Your task to perform on an android device: check google app version Image 0: 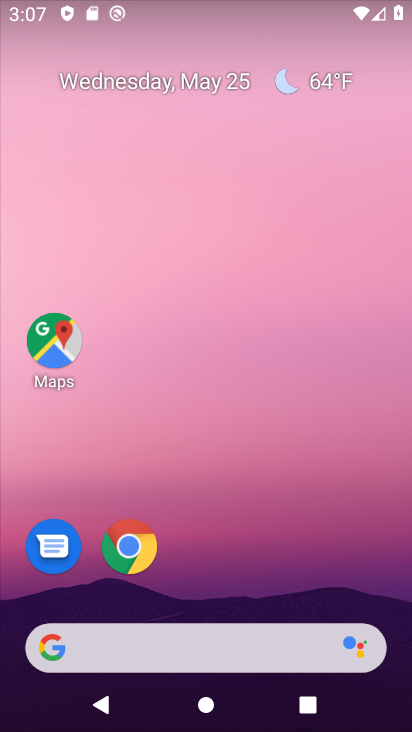
Step 0: drag from (234, 584) to (179, 171)
Your task to perform on an android device: check google app version Image 1: 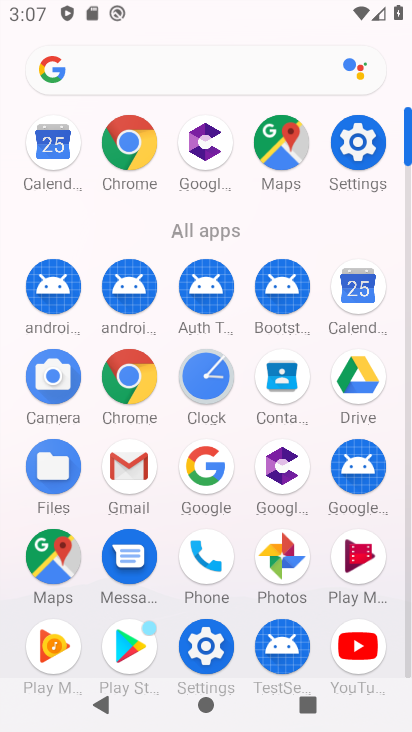
Step 1: click (201, 493)
Your task to perform on an android device: check google app version Image 2: 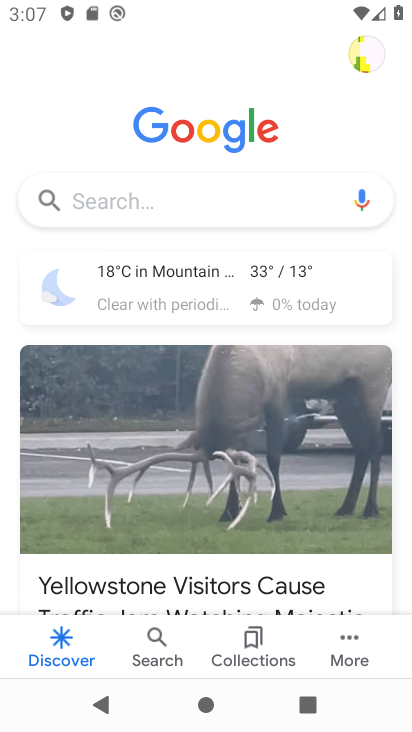
Step 2: click (367, 648)
Your task to perform on an android device: check google app version Image 3: 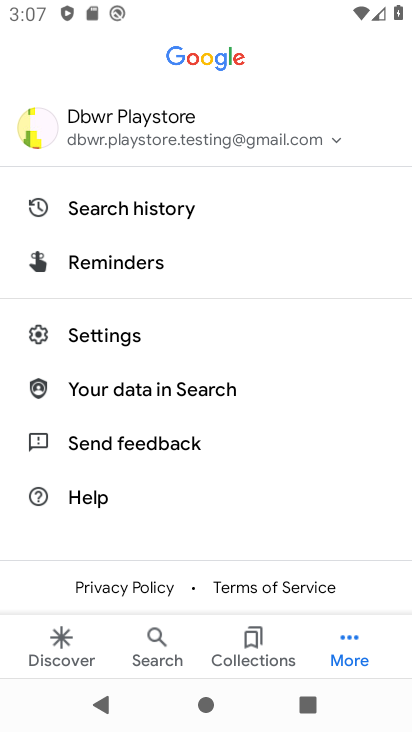
Step 3: click (120, 341)
Your task to perform on an android device: check google app version Image 4: 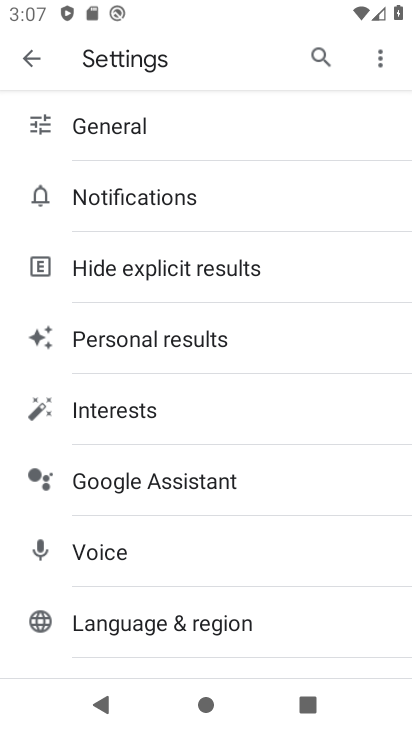
Step 4: drag from (179, 623) to (125, 441)
Your task to perform on an android device: check google app version Image 5: 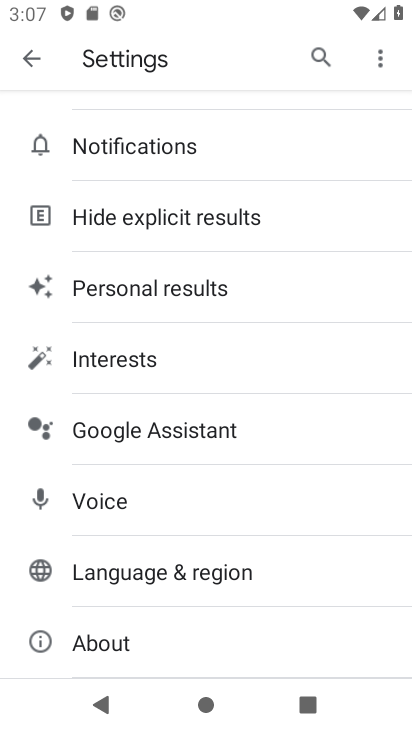
Step 5: click (90, 640)
Your task to perform on an android device: check google app version Image 6: 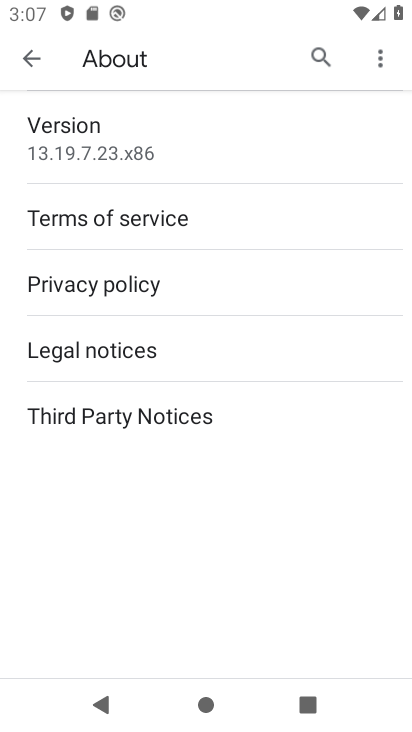
Step 6: click (96, 152)
Your task to perform on an android device: check google app version Image 7: 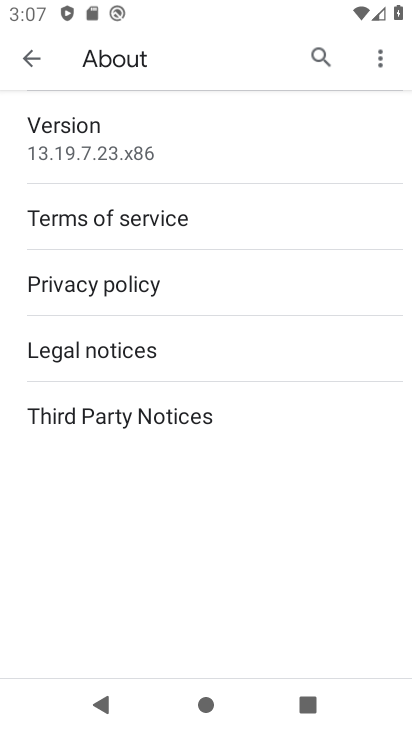
Step 7: task complete